Your task to perform on an android device: empty trash in google photos Image 0: 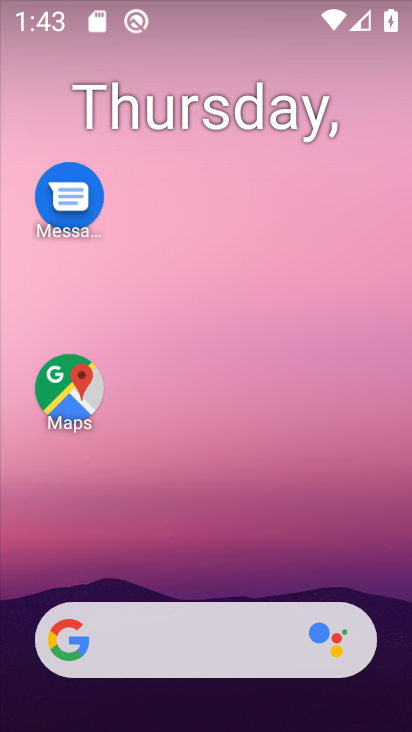
Step 0: drag from (122, 453) to (121, 135)
Your task to perform on an android device: empty trash in google photos Image 1: 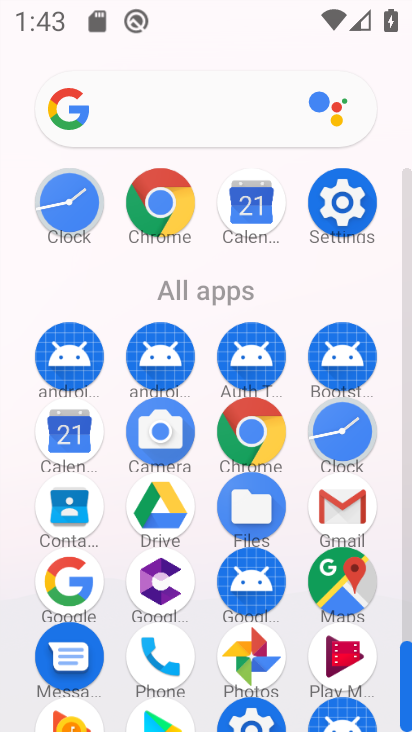
Step 1: click (250, 658)
Your task to perform on an android device: empty trash in google photos Image 2: 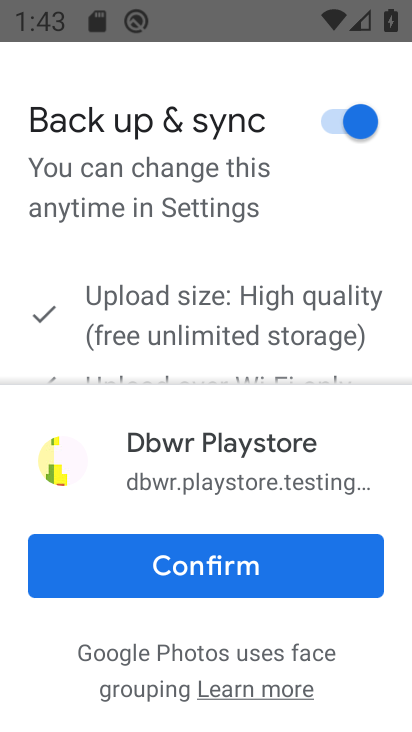
Step 2: click (185, 547)
Your task to perform on an android device: empty trash in google photos Image 3: 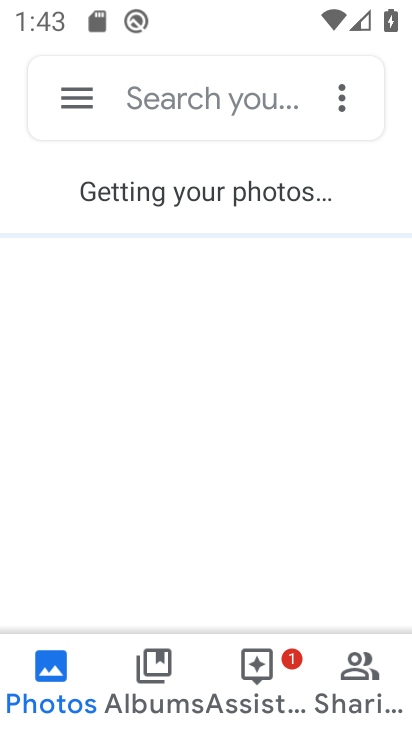
Step 3: click (82, 96)
Your task to perform on an android device: empty trash in google photos Image 4: 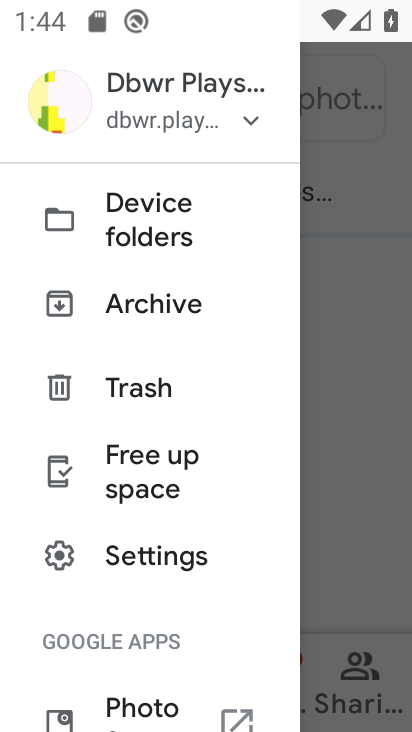
Step 4: click (142, 398)
Your task to perform on an android device: empty trash in google photos Image 5: 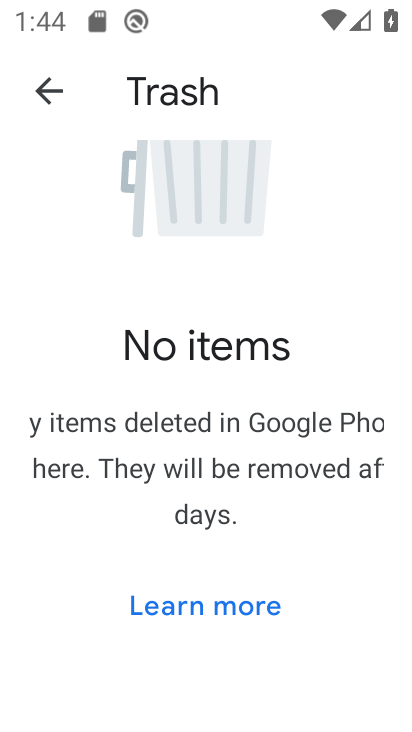
Step 5: task complete